Your task to perform on an android device: turn off location Image 0: 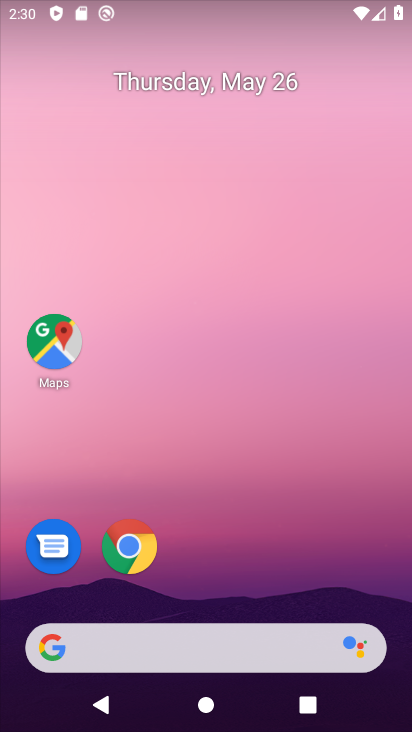
Step 0: drag from (399, 634) to (382, 103)
Your task to perform on an android device: turn off location Image 1: 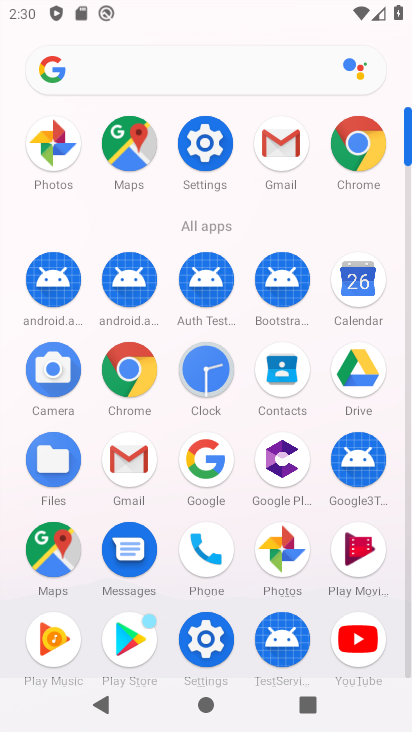
Step 1: click (200, 627)
Your task to perform on an android device: turn off location Image 2: 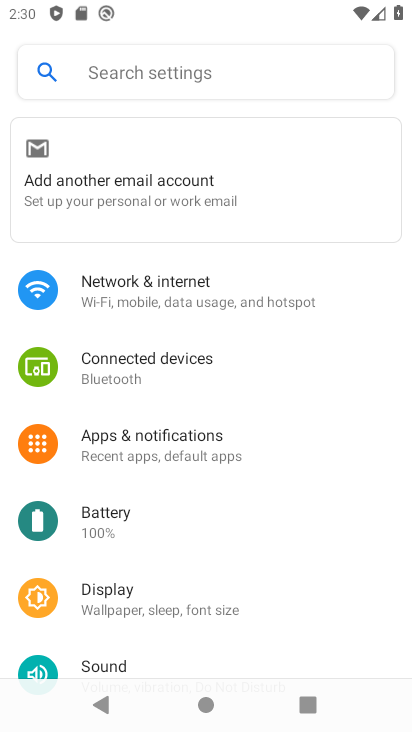
Step 2: drag from (243, 645) to (253, 355)
Your task to perform on an android device: turn off location Image 3: 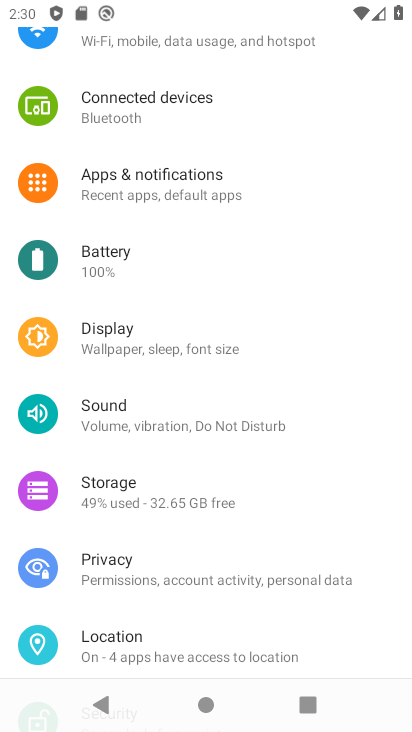
Step 3: click (99, 635)
Your task to perform on an android device: turn off location Image 4: 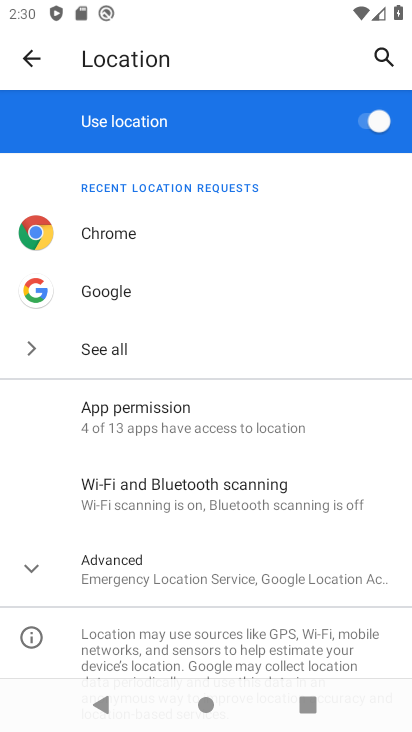
Step 4: click (364, 119)
Your task to perform on an android device: turn off location Image 5: 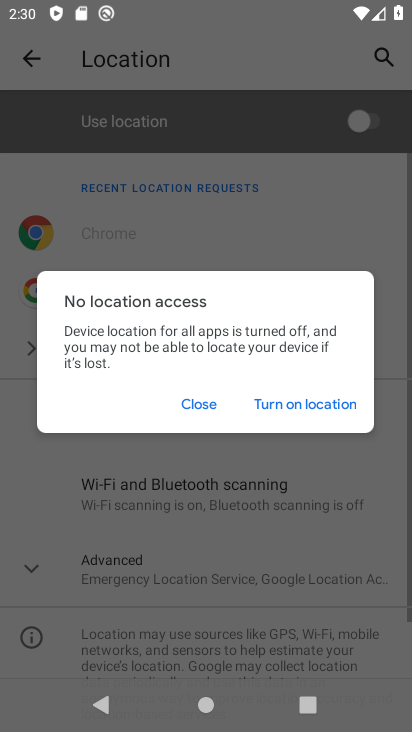
Step 5: task complete